Your task to perform on an android device: see sites visited before in the chrome app Image 0: 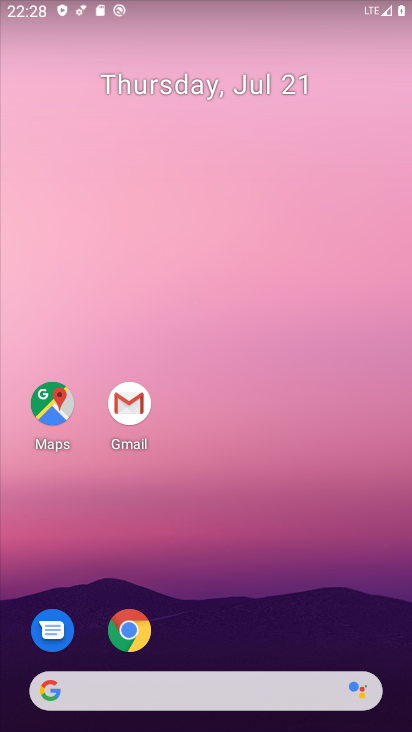
Step 0: drag from (262, 545) to (247, 32)
Your task to perform on an android device: see sites visited before in the chrome app Image 1: 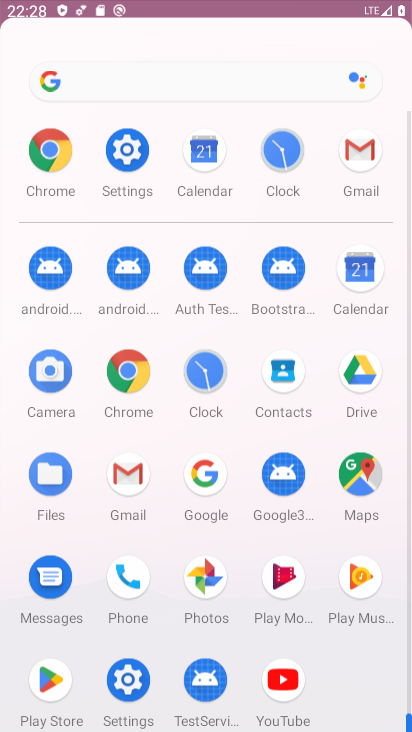
Step 1: click (234, 13)
Your task to perform on an android device: see sites visited before in the chrome app Image 2: 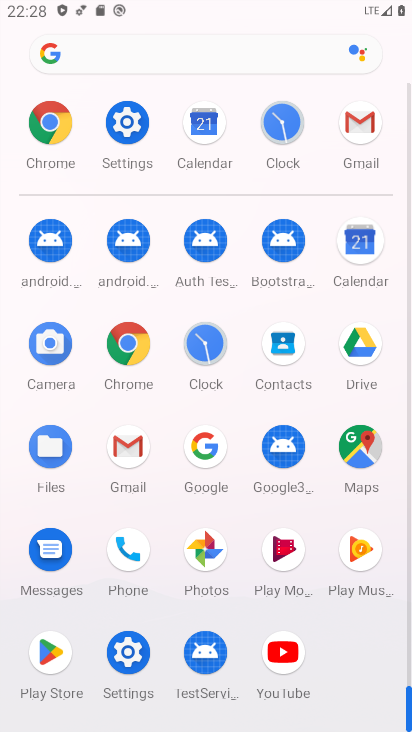
Step 2: click (56, 132)
Your task to perform on an android device: see sites visited before in the chrome app Image 3: 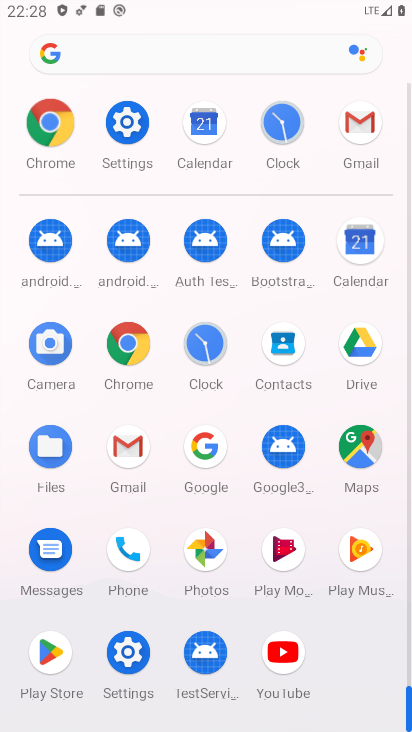
Step 3: click (56, 135)
Your task to perform on an android device: see sites visited before in the chrome app Image 4: 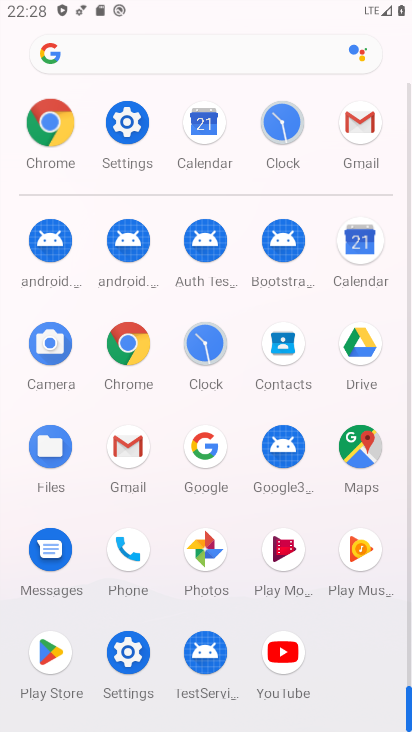
Step 4: click (49, 140)
Your task to perform on an android device: see sites visited before in the chrome app Image 5: 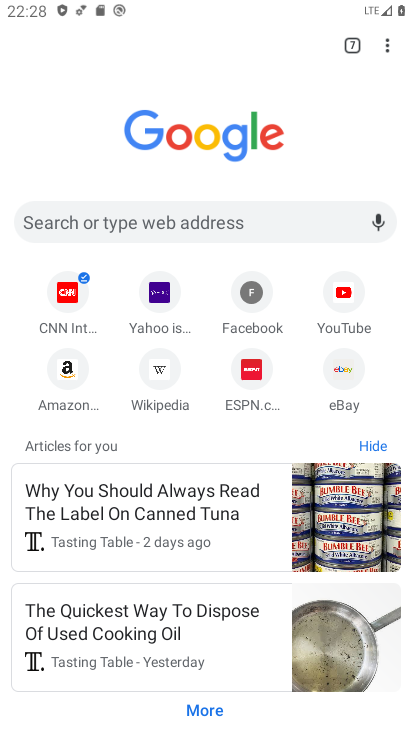
Step 5: drag from (387, 50) to (215, 217)
Your task to perform on an android device: see sites visited before in the chrome app Image 6: 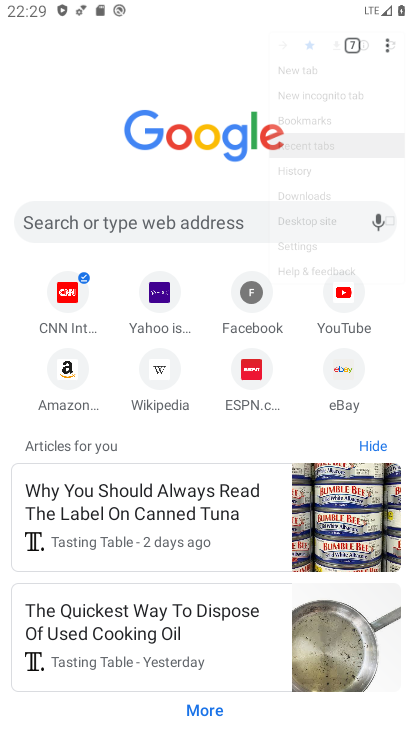
Step 6: click (216, 217)
Your task to perform on an android device: see sites visited before in the chrome app Image 7: 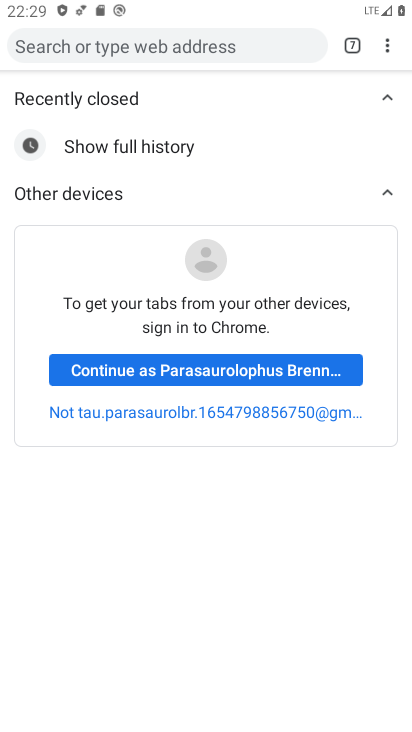
Step 7: task complete